Your task to perform on an android device: check data usage Image 0: 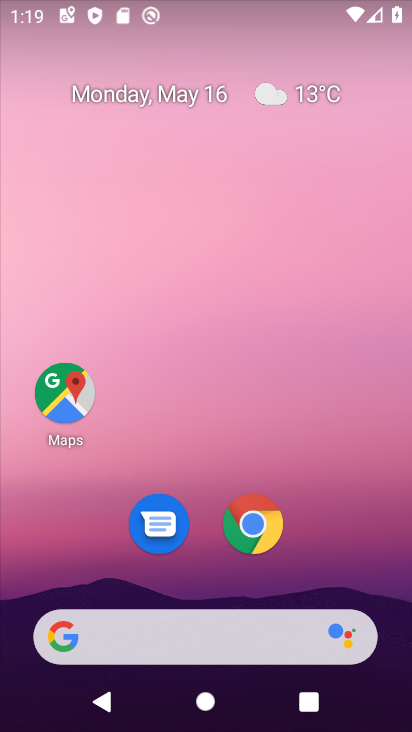
Step 0: drag from (298, 424) to (305, 59)
Your task to perform on an android device: check data usage Image 1: 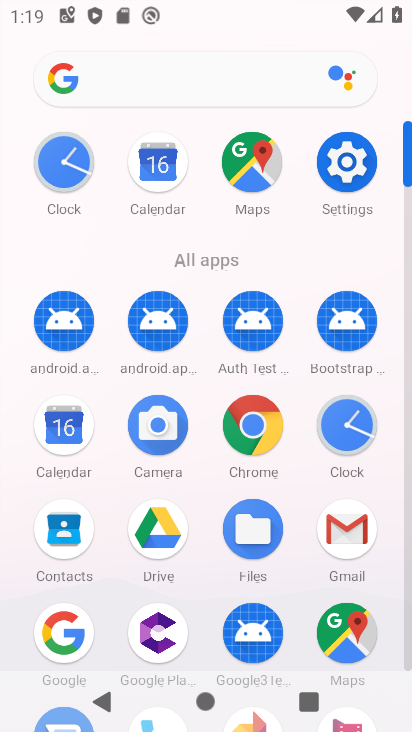
Step 1: click (331, 154)
Your task to perform on an android device: check data usage Image 2: 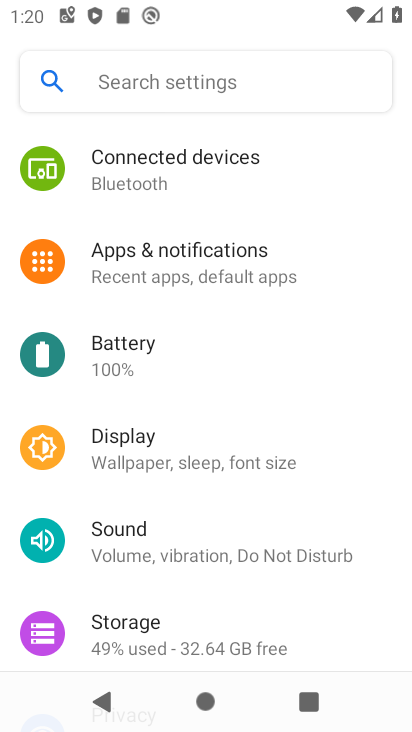
Step 2: drag from (318, 311) to (295, 408)
Your task to perform on an android device: check data usage Image 3: 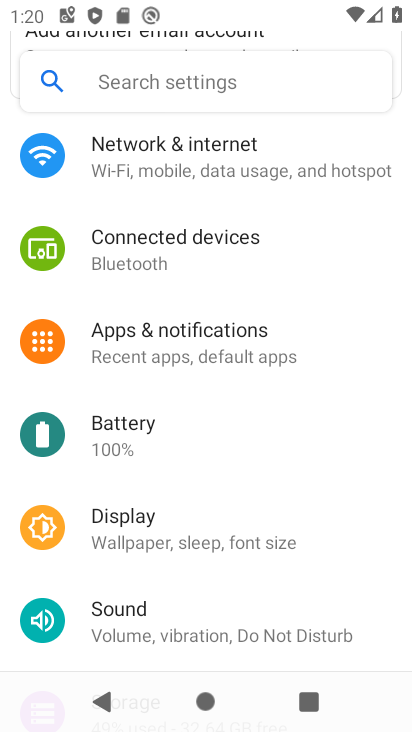
Step 3: click (265, 166)
Your task to perform on an android device: check data usage Image 4: 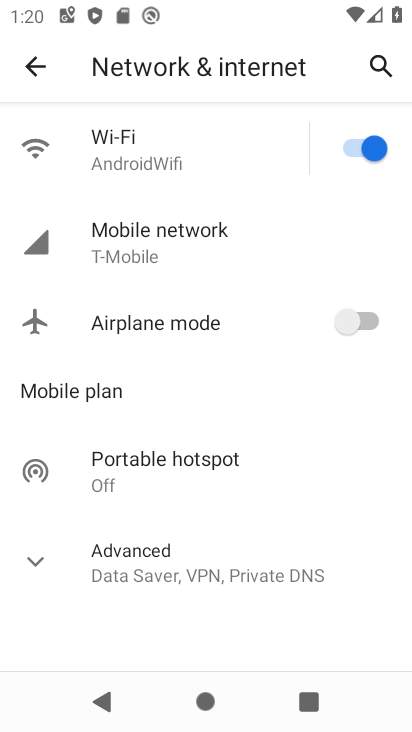
Step 4: click (224, 223)
Your task to perform on an android device: check data usage Image 5: 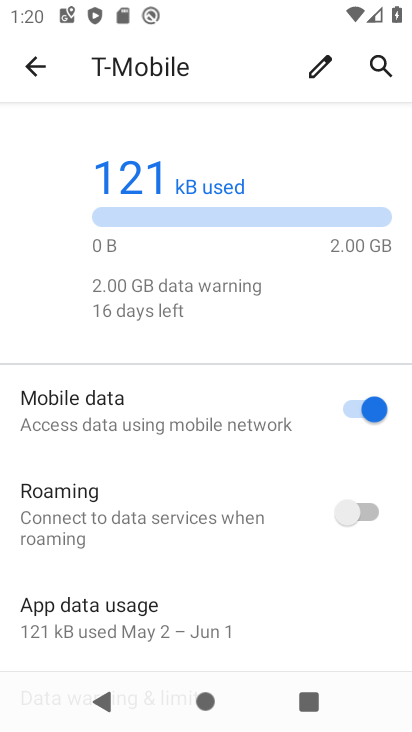
Step 5: task complete